Your task to perform on an android device: turn off smart reply in the gmail app Image 0: 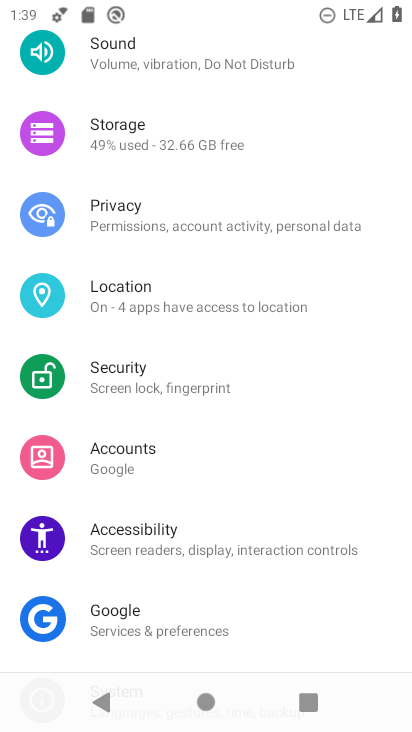
Step 0: press home button
Your task to perform on an android device: turn off smart reply in the gmail app Image 1: 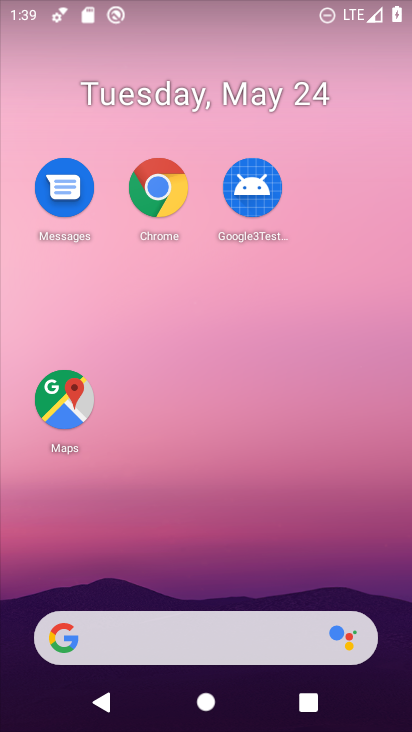
Step 1: drag from (151, 16) to (200, 1)
Your task to perform on an android device: turn off smart reply in the gmail app Image 2: 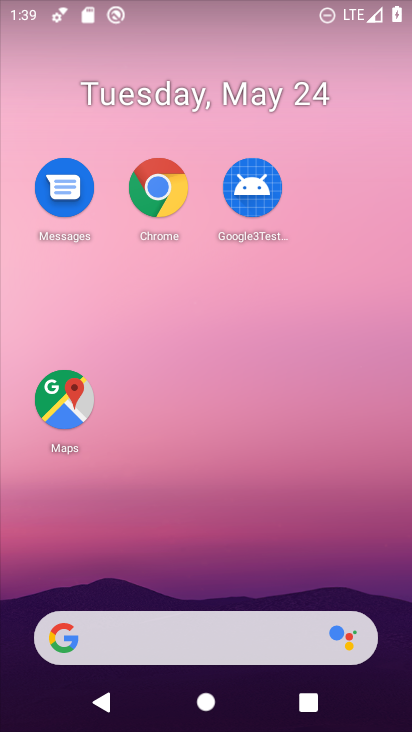
Step 2: drag from (195, 389) to (266, 39)
Your task to perform on an android device: turn off smart reply in the gmail app Image 3: 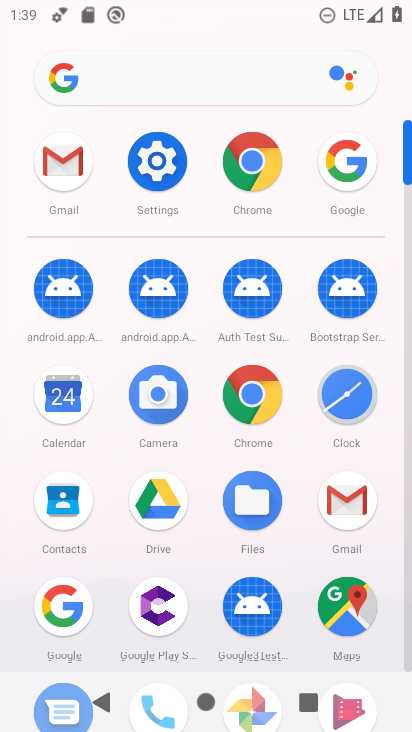
Step 3: click (76, 167)
Your task to perform on an android device: turn off smart reply in the gmail app Image 4: 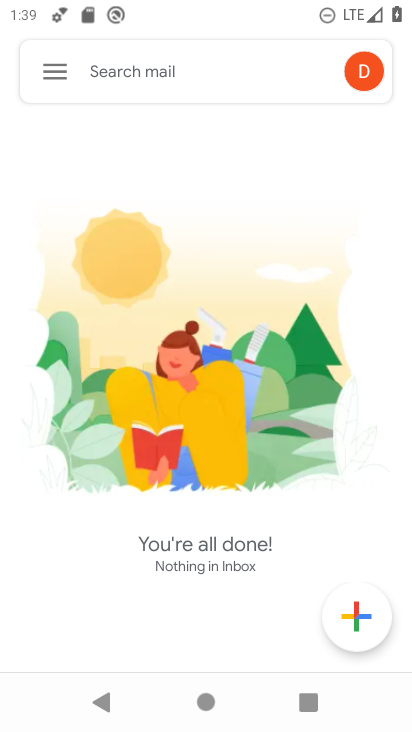
Step 4: click (49, 77)
Your task to perform on an android device: turn off smart reply in the gmail app Image 5: 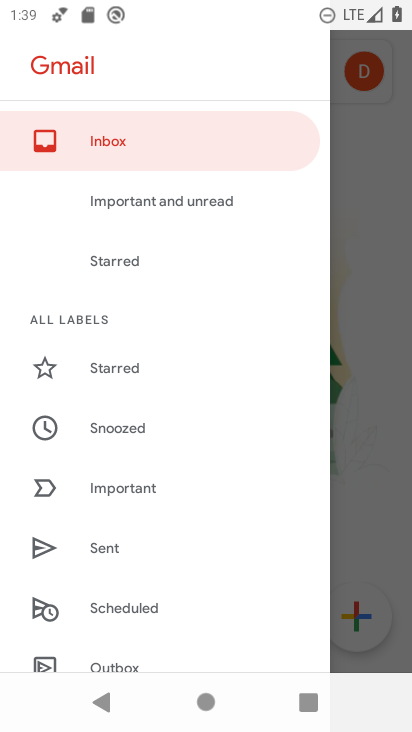
Step 5: drag from (137, 569) to (153, 117)
Your task to perform on an android device: turn off smart reply in the gmail app Image 6: 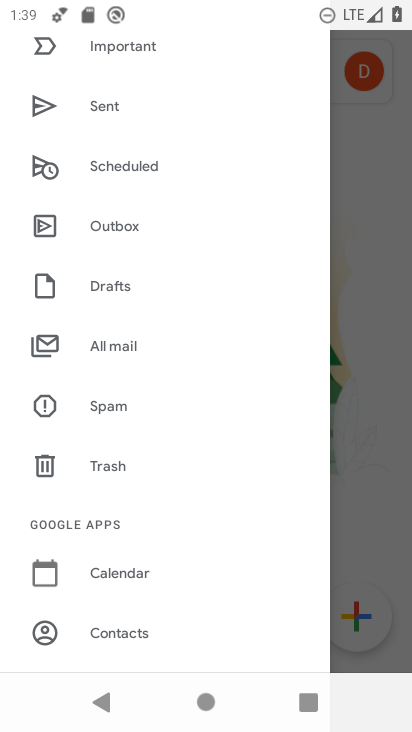
Step 6: drag from (178, 587) to (157, 166)
Your task to perform on an android device: turn off smart reply in the gmail app Image 7: 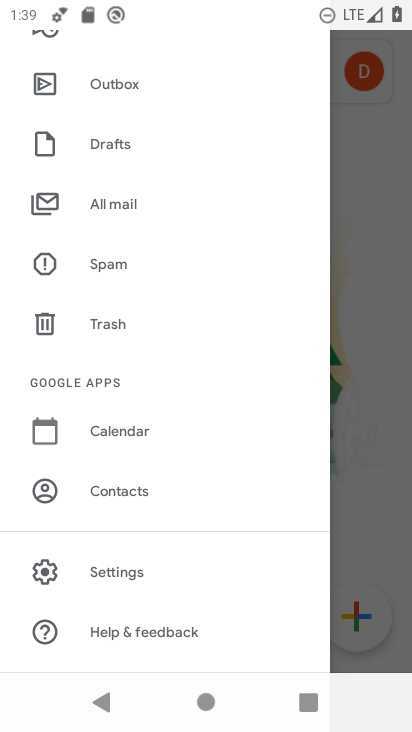
Step 7: click (115, 572)
Your task to perform on an android device: turn off smart reply in the gmail app Image 8: 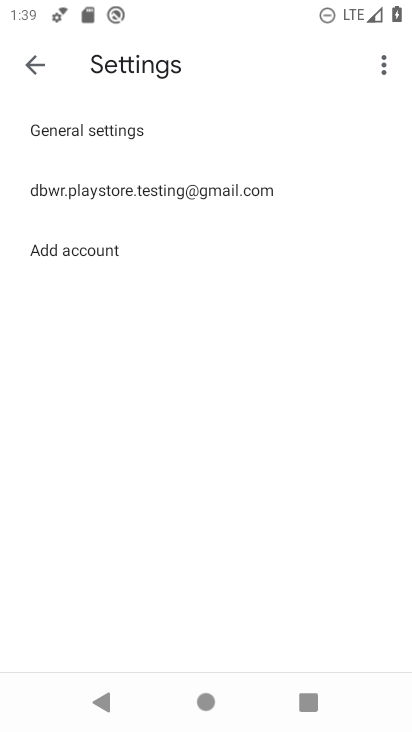
Step 8: click (106, 203)
Your task to perform on an android device: turn off smart reply in the gmail app Image 9: 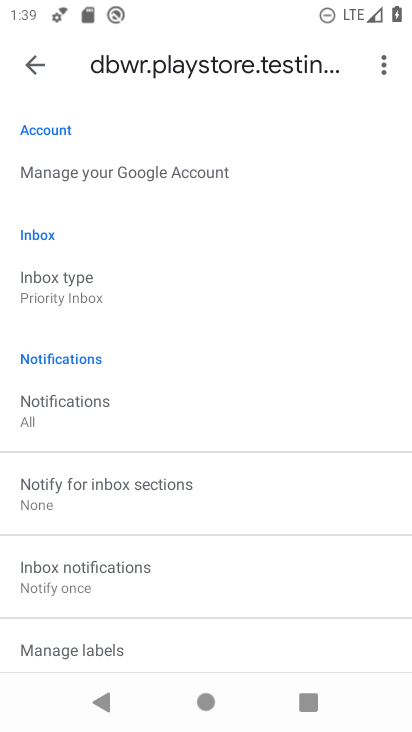
Step 9: drag from (111, 605) to (112, 189)
Your task to perform on an android device: turn off smart reply in the gmail app Image 10: 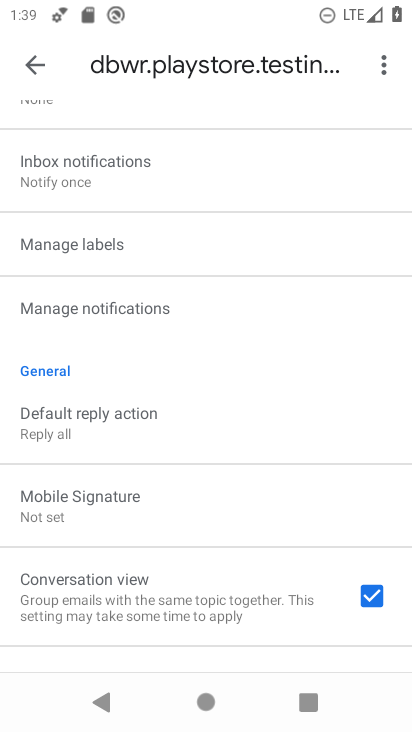
Step 10: drag from (205, 607) to (195, 296)
Your task to perform on an android device: turn off smart reply in the gmail app Image 11: 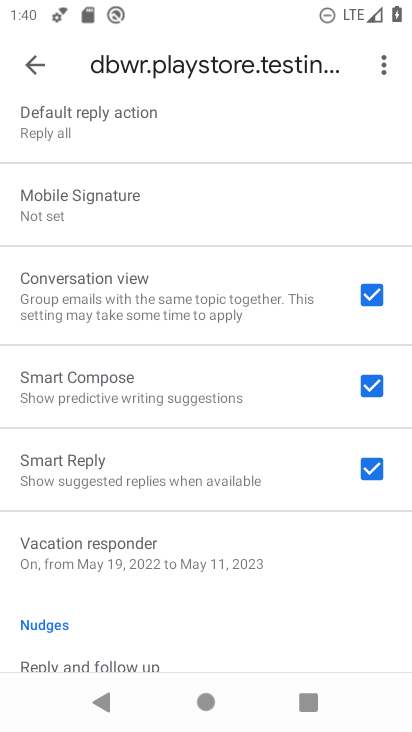
Step 11: drag from (178, 603) to (169, 310)
Your task to perform on an android device: turn off smart reply in the gmail app Image 12: 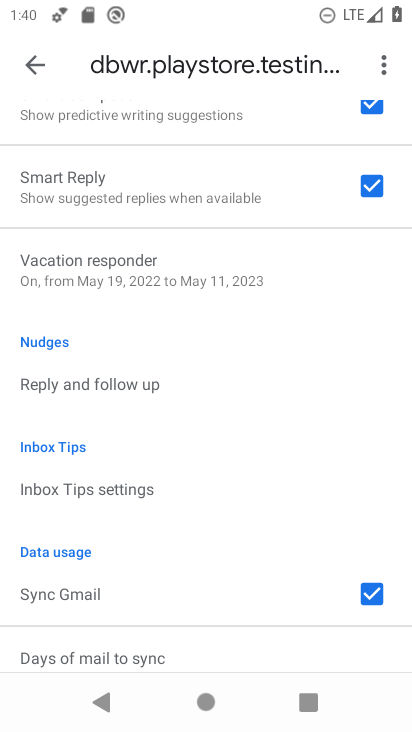
Step 12: click (388, 183)
Your task to perform on an android device: turn off smart reply in the gmail app Image 13: 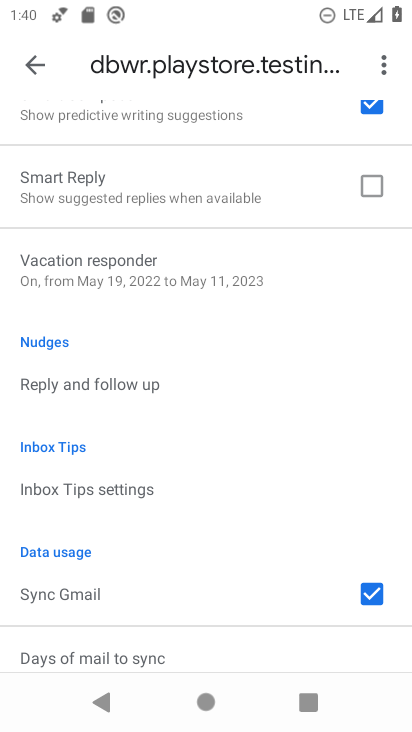
Step 13: task complete